Your task to perform on an android device: Open Google Maps and go to "Timeline" Image 0: 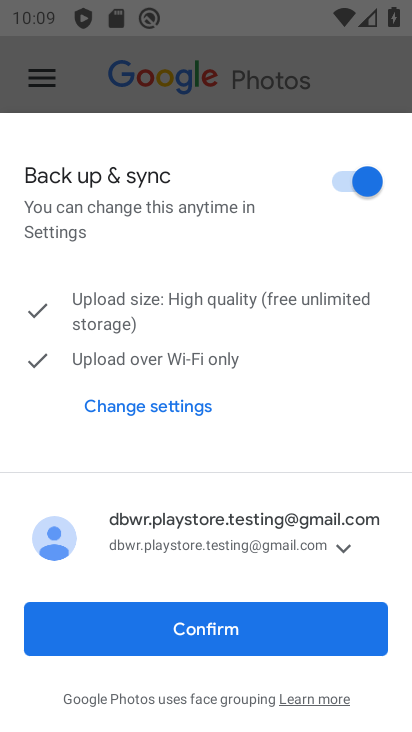
Step 0: press home button
Your task to perform on an android device: Open Google Maps and go to "Timeline" Image 1: 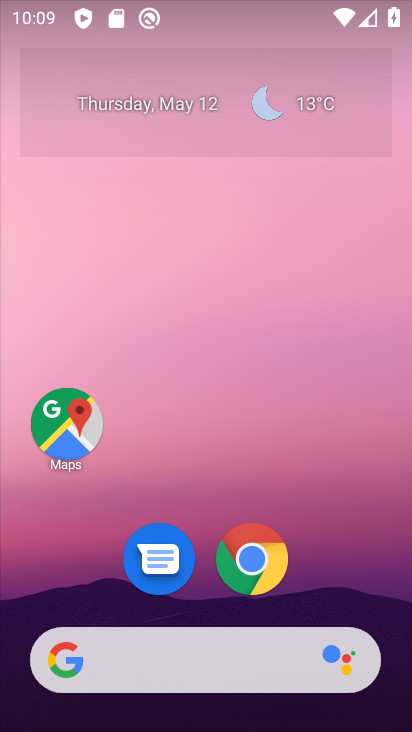
Step 1: click (206, 593)
Your task to perform on an android device: Open Google Maps and go to "Timeline" Image 2: 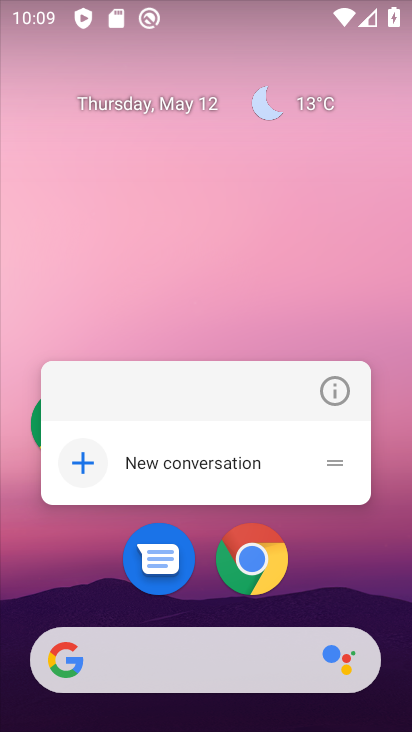
Step 2: click (69, 439)
Your task to perform on an android device: Open Google Maps and go to "Timeline" Image 3: 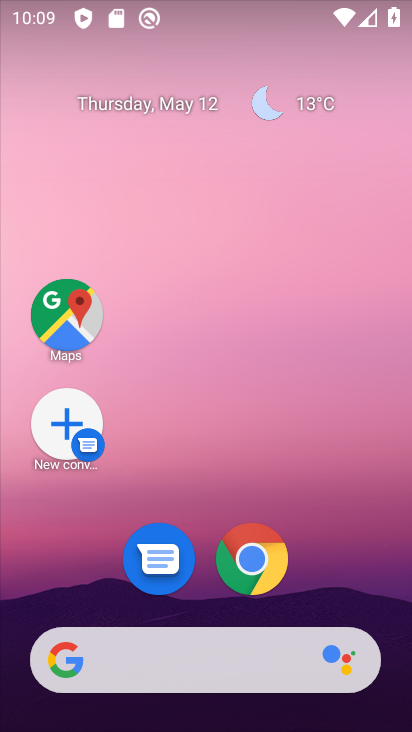
Step 3: click (88, 310)
Your task to perform on an android device: Open Google Maps and go to "Timeline" Image 4: 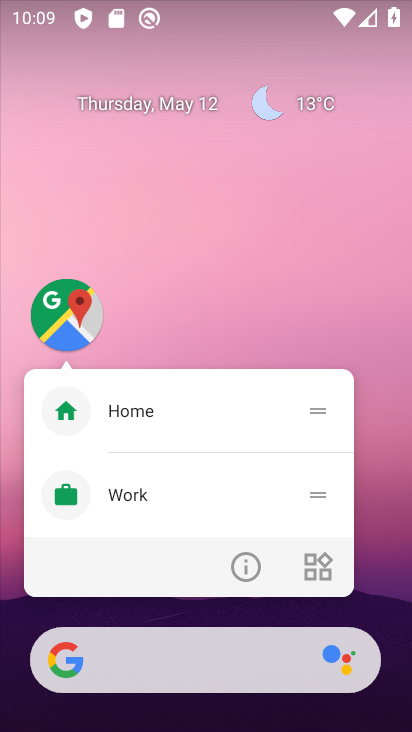
Step 4: click (80, 295)
Your task to perform on an android device: Open Google Maps and go to "Timeline" Image 5: 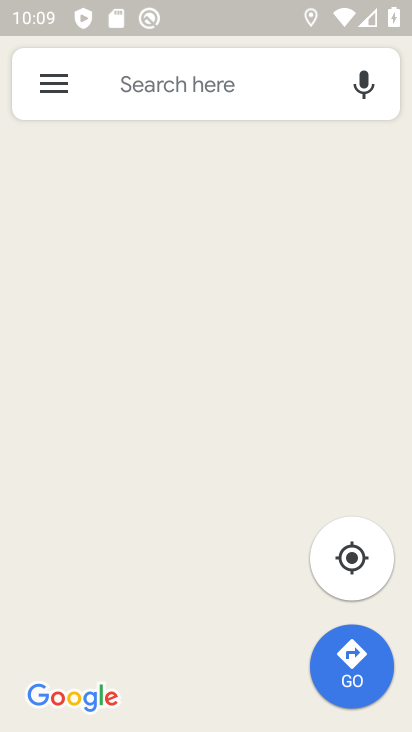
Step 5: click (54, 91)
Your task to perform on an android device: Open Google Maps and go to "Timeline" Image 6: 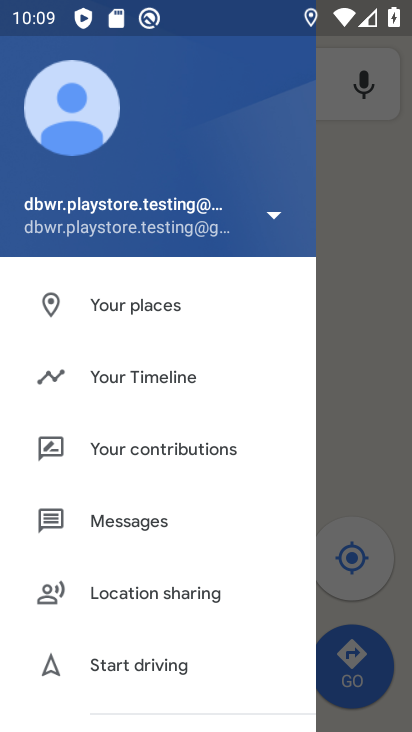
Step 6: click (168, 383)
Your task to perform on an android device: Open Google Maps and go to "Timeline" Image 7: 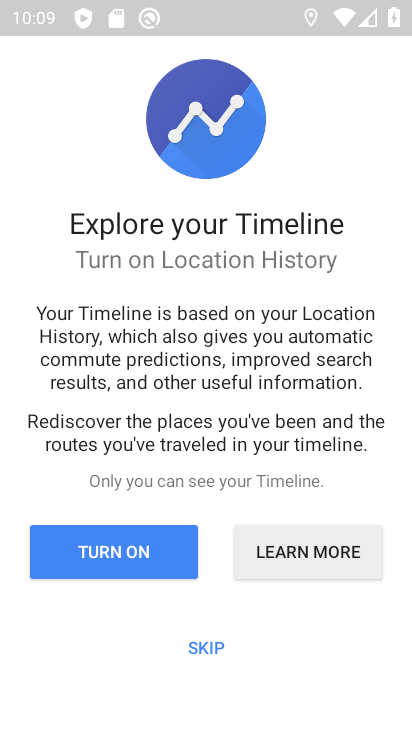
Step 7: click (206, 649)
Your task to perform on an android device: Open Google Maps and go to "Timeline" Image 8: 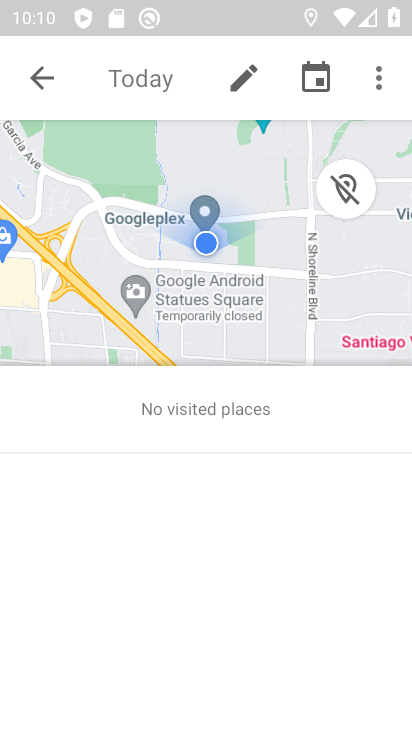
Step 8: task complete